Your task to perform on an android device: Turn on the flashlight Image 0: 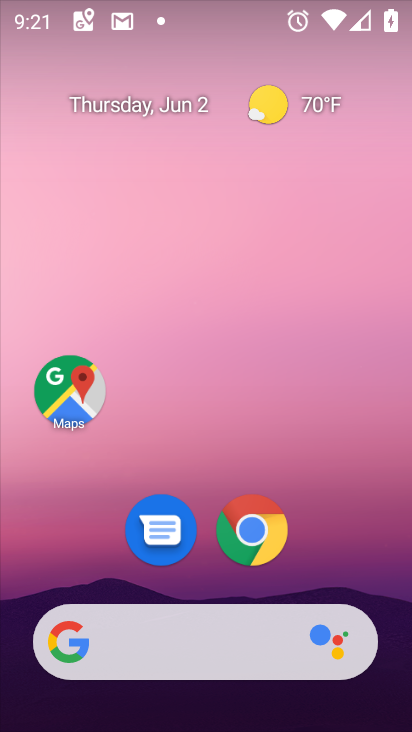
Step 0: drag from (96, 608) to (110, 272)
Your task to perform on an android device: Turn on the flashlight Image 1: 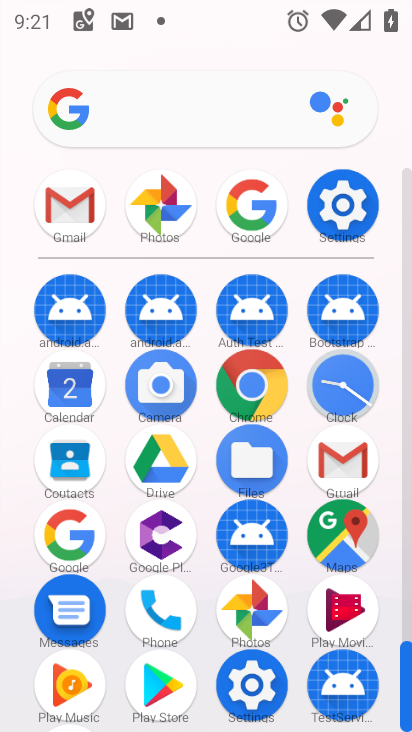
Step 1: drag from (225, 7) to (231, 598)
Your task to perform on an android device: Turn on the flashlight Image 2: 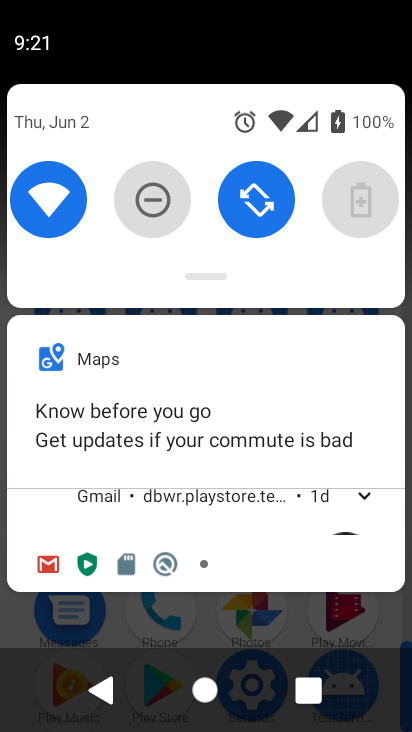
Step 2: drag from (218, 227) to (218, 579)
Your task to perform on an android device: Turn on the flashlight Image 3: 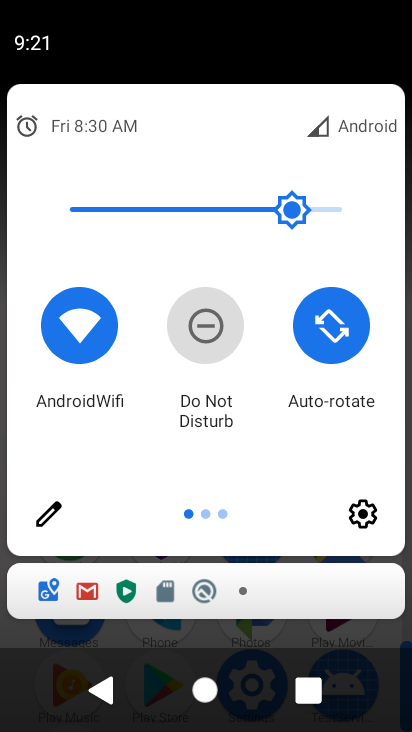
Step 3: drag from (354, 319) to (12, 394)
Your task to perform on an android device: Turn on the flashlight Image 4: 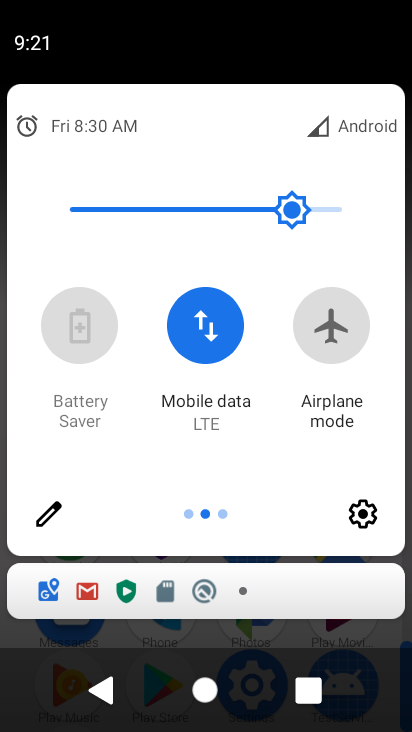
Step 4: drag from (359, 383) to (32, 439)
Your task to perform on an android device: Turn on the flashlight Image 5: 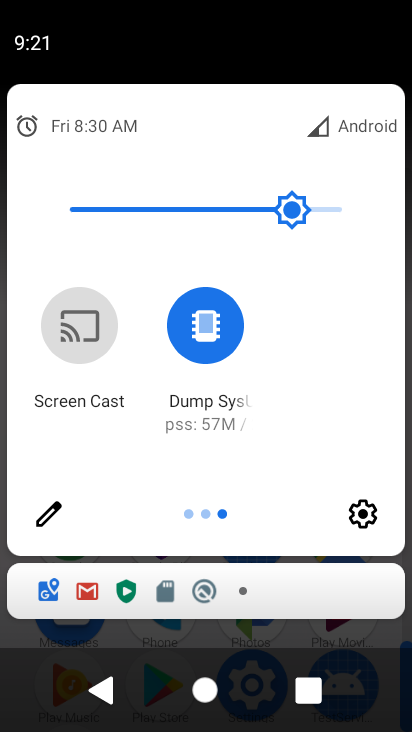
Step 5: click (40, 528)
Your task to perform on an android device: Turn on the flashlight Image 6: 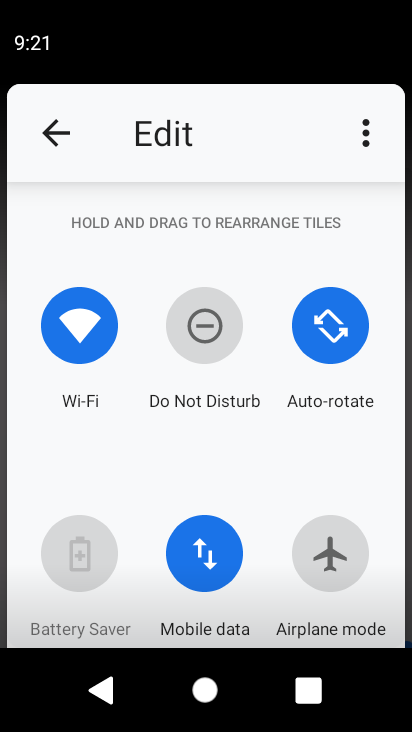
Step 6: task complete